Your task to perform on an android device: Show me productivity apps on the Play Store Image 0: 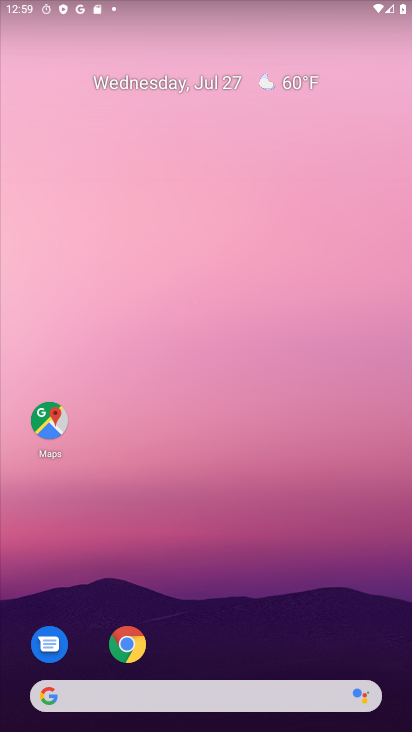
Step 0: drag from (195, 605) to (184, 164)
Your task to perform on an android device: Show me productivity apps on the Play Store Image 1: 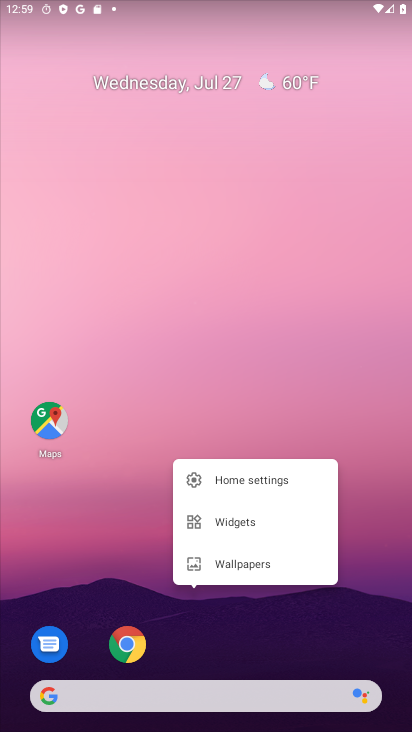
Step 1: click (189, 619)
Your task to perform on an android device: Show me productivity apps on the Play Store Image 2: 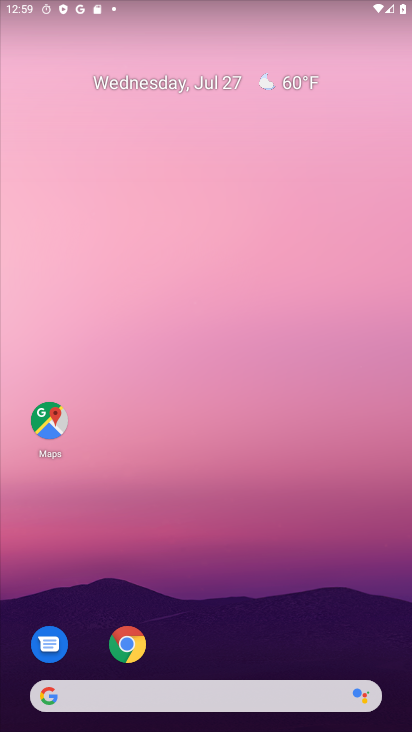
Step 2: drag from (179, 576) to (188, 196)
Your task to perform on an android device: Show me productivity apps on the Play Store Image 3: 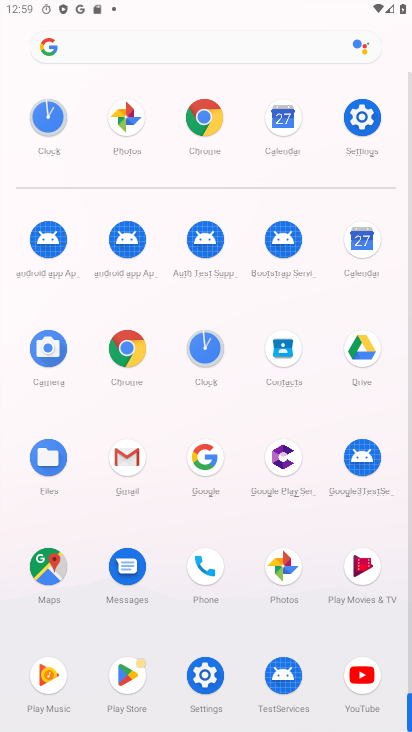
Step 3: click (130, 660)
Your task to perform on an android device: Show me productivity apps on the Play Store Image 4: 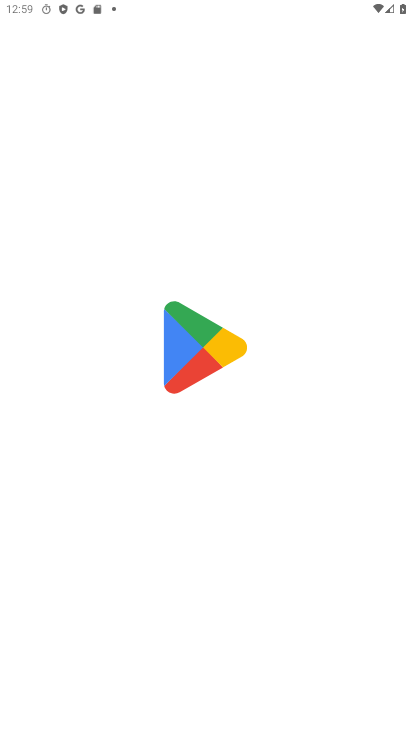
Step 4: click (129, 660)
Your task to perform on an android device: Show me productivity apps on the Play Store Image 5: 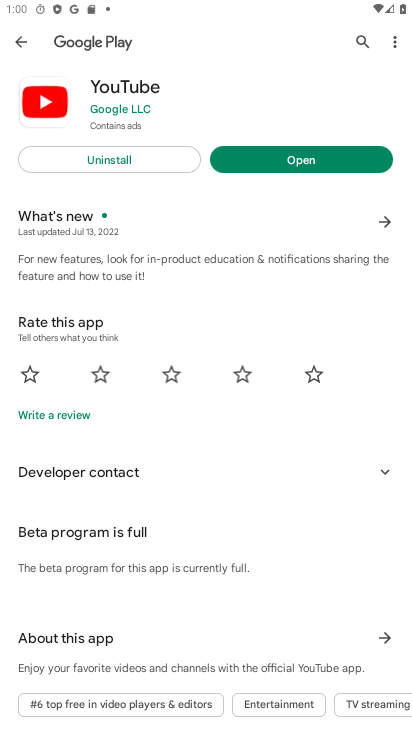
Step 5: click (25, 24)
Your task to perform on an android device: Show me productivity apps on the Play Store Image 6: 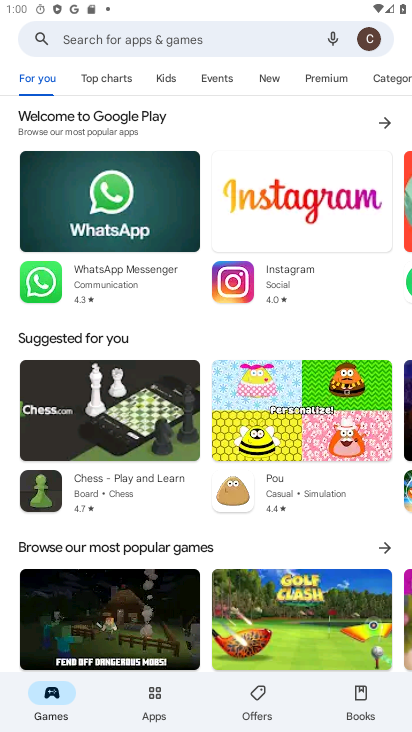
Step 6: task complete